Your task to perform on an android device: toggle javascript in the chrome app Image 0: 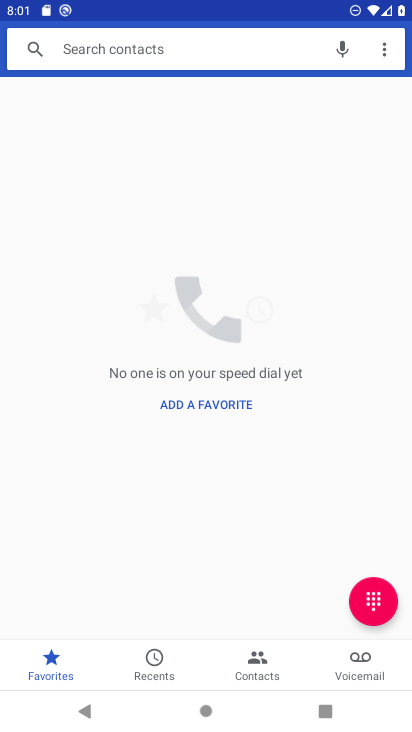
Step 0: press home button
Your task to perform on an android device: toggle javascript in the chrome app Image 1: 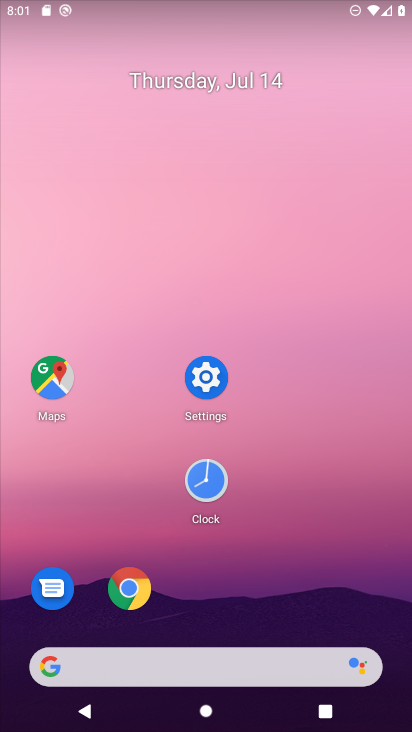
Step 1: click (136, 578)
Your task to perform on an android device: toggle javascript in the chrome app Image 2: 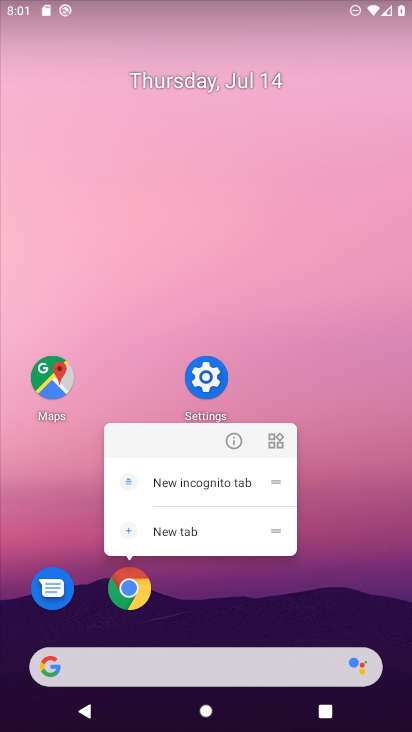
Step 2: click (128, 585)
Your task to perform on an android device: toggle javascript in the chrome app Image 3: 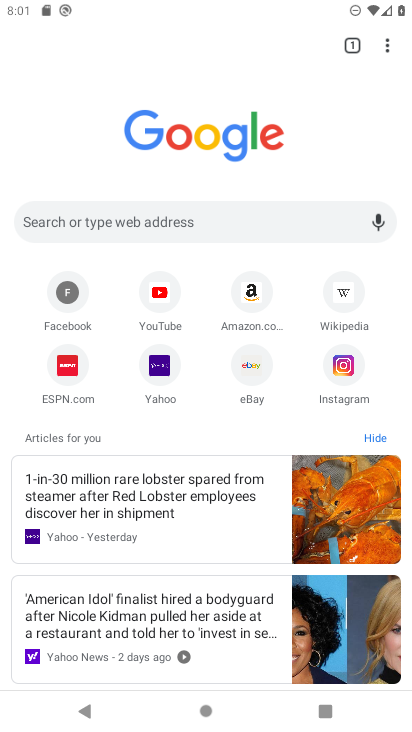
Step 3: click (387, 41)
Your task to perform on an android device: toggle javascript in the chrome app Image 4: 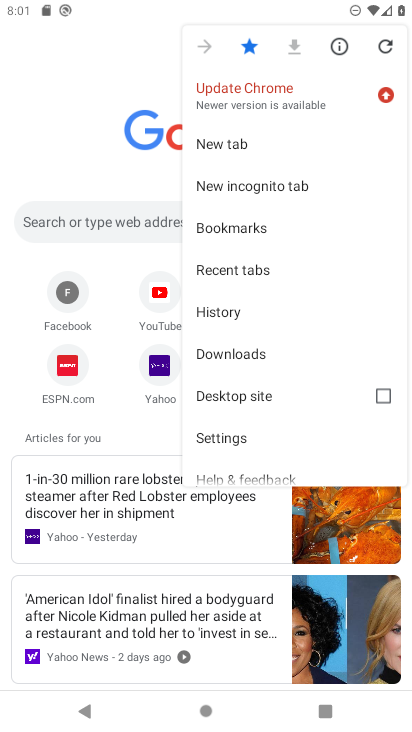
Step 4: click (232, 429)
Your task to perform on an android device: toggle javascript in the chrome app Image 5: 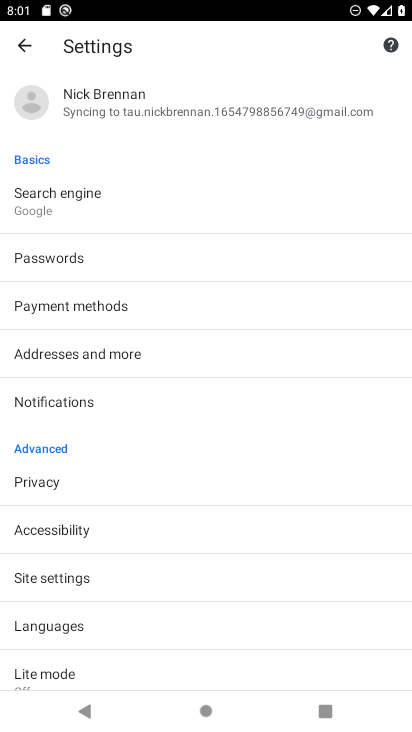
Step 5: drag from (262, 653) to (292, 272)
Your task to perform on an android device: toggle javascript in the chrome app Image 6: 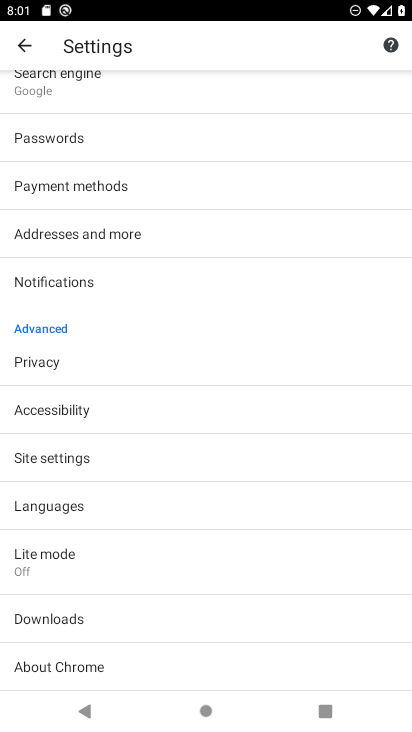
Step 6: click (77, 455)
Your task to perform on an android device: toggle javascript in the chrome app Image 7: 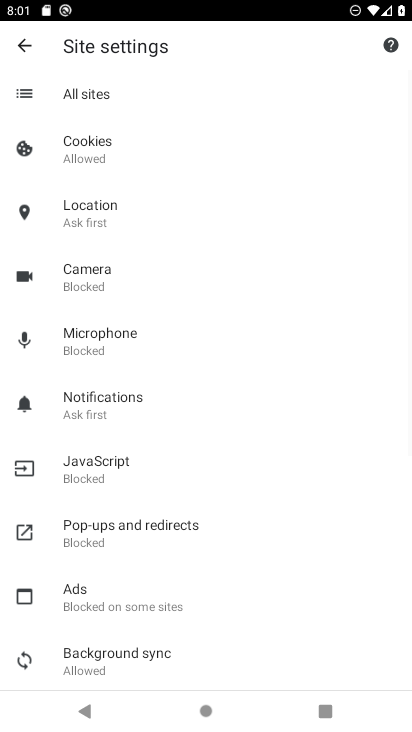
Step 7: click (82, 464)
Your task to perform on an android device: toggle javascript in the chrome app Image 8: 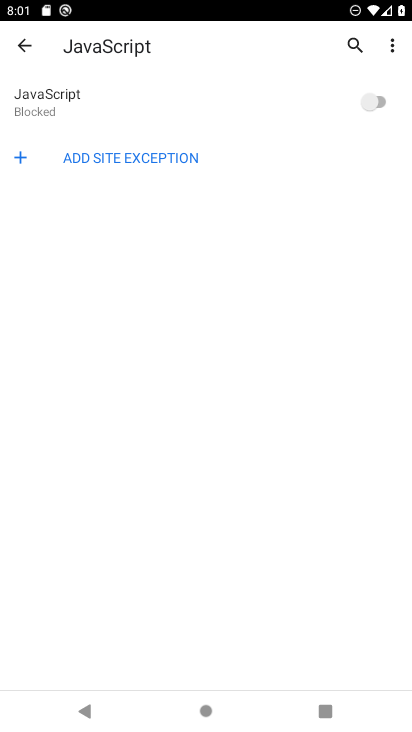
Step 8: click (386, 97)
Your task to perform on an android device: toggle javascript in the chrome app Image 9: 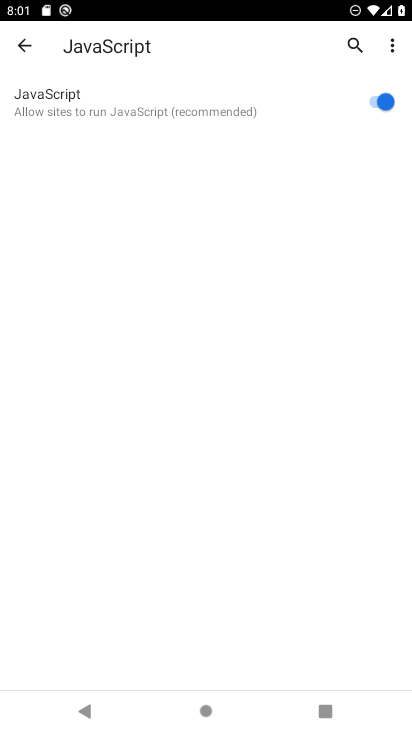
Step 9: task complete